Your task to perform on an android device: set an alarm Image 0: 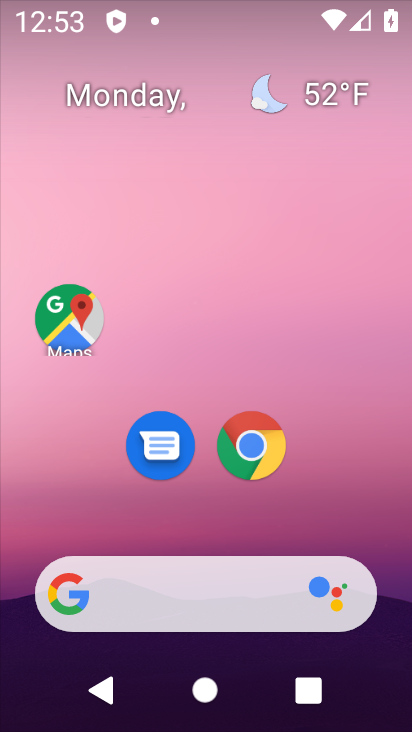
Step 0: drag from (399, 552) to (383, 57)
Your task to perform on an android device: set an alarm Image 1: 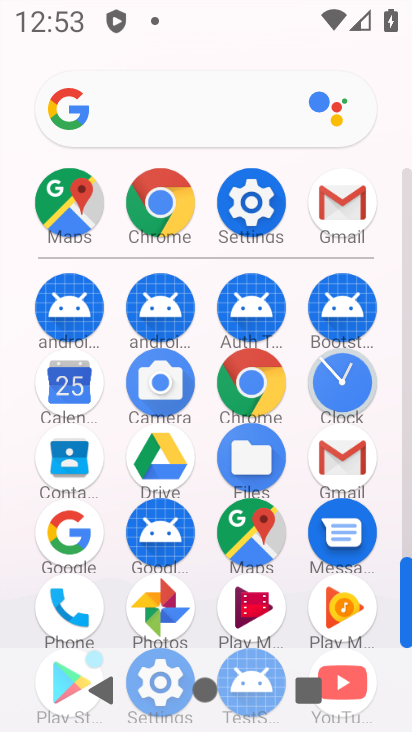
Step 1: click (330, 393)
Your task to perform on an android device: set an alarm Image 2: 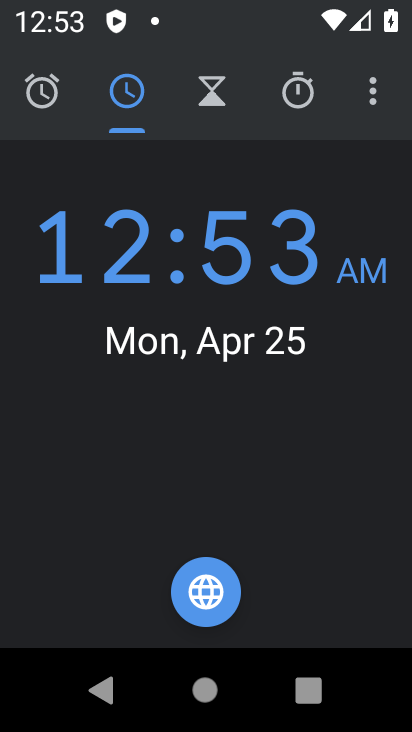
Step 2: click (372, 111)
Your task to perform on an android device: set an alarm Image 3: 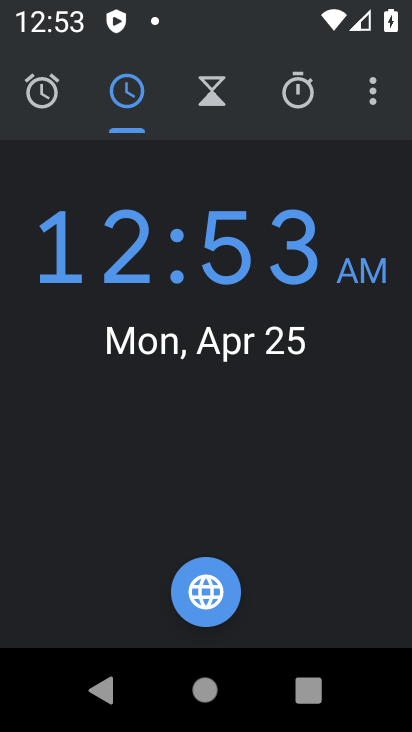
Step 3: click (381, 99)
Your task to perform on an android device: set an alarm Image 4: 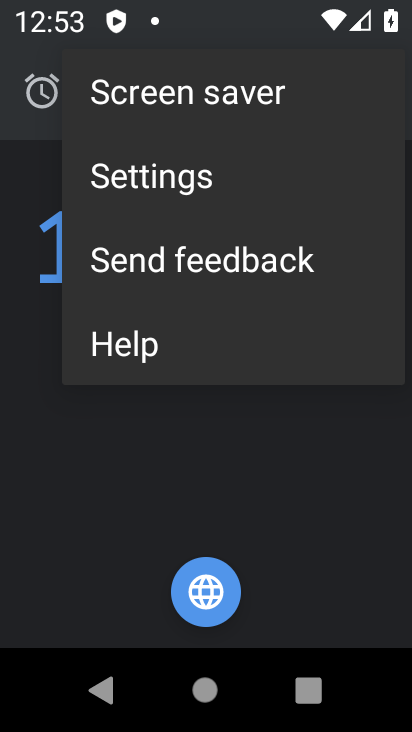
Step 4: click (176, 186)
Your task to perform on an android device: set an alarm Image 5: 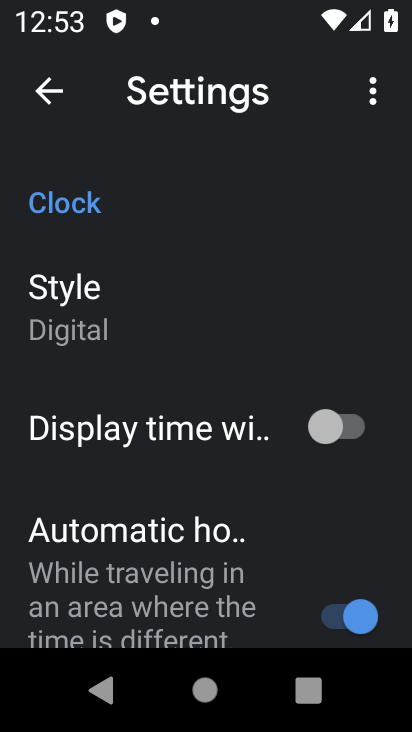
Step 5: drag from (173, 456) to (242, 208)
Your task to perform on an android device: set an alarm Image 6: 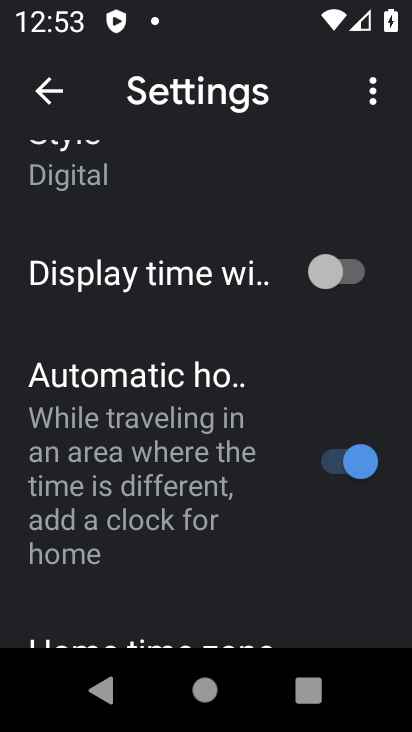
Step 6: drag from (135, 577) to (173, 172)
Your task to perform on an android device: set an alarm Image 7: 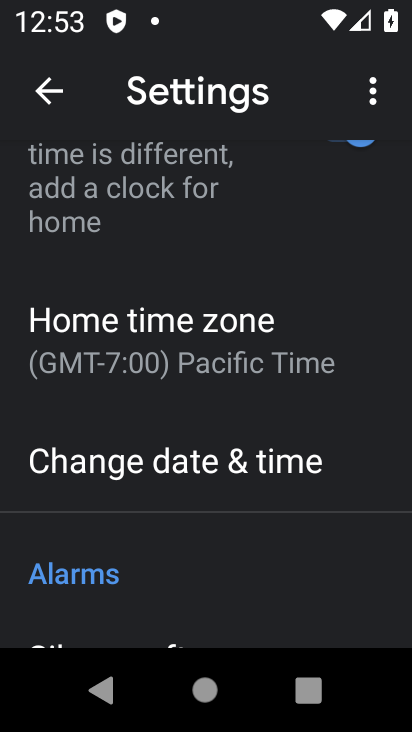
Step 7: drag from (42, 512) to (183, 223)
Your task to perform on an android device: set an alarm Image 8: 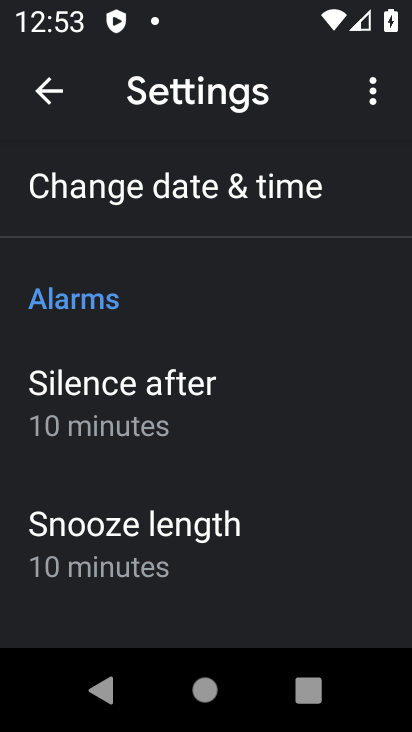
Step 8: drag from (291, 532) to (323, 153)
Your task to perform on an android device: set an alarm Image 9: 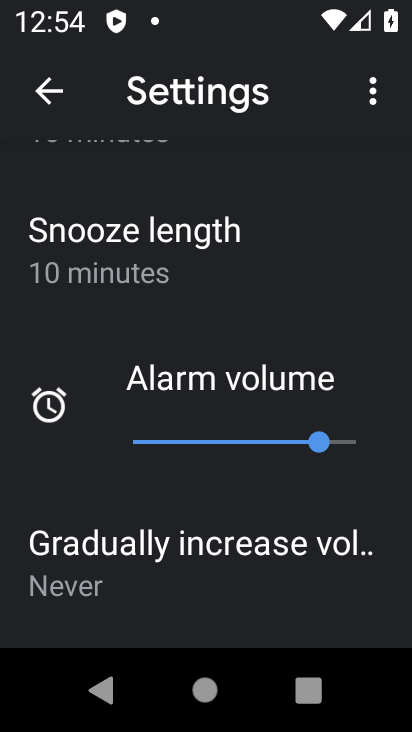
Step 9: drag from (216, 590) to (326, 202)
Your task to perform on an android device: set an alarm Image 10: 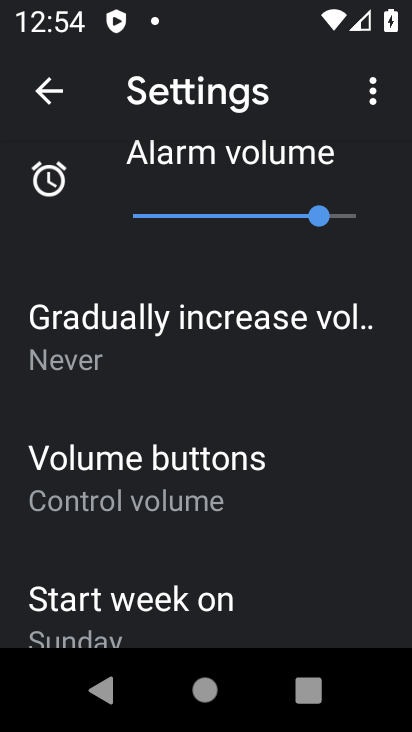
Step 10: drag from (230, 129) to (230, 516)
Your task to perform on an android device: set an alarm Image 11: 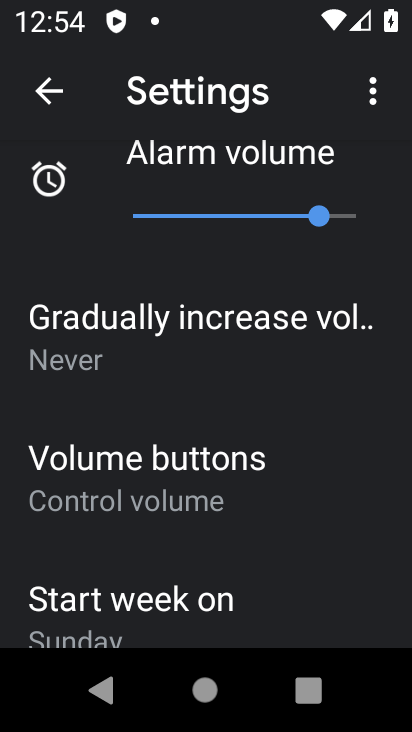
Step 11: click (44, 102)
Your task to perform on an android device: set an alarm Image 12: 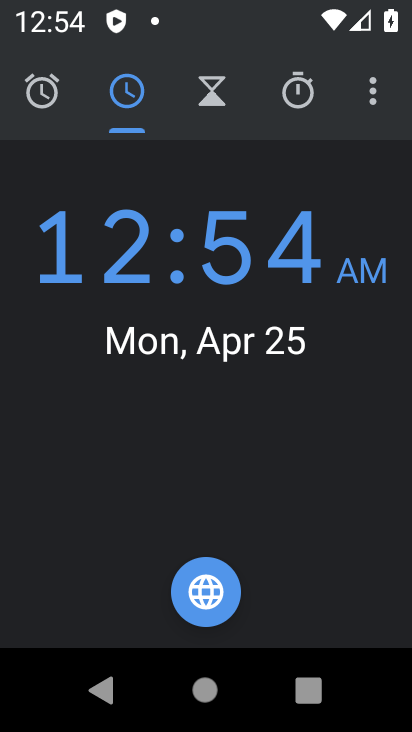
Step 12: click (53, 106)
Your task to perform on an android device: set an alarm Image 13: 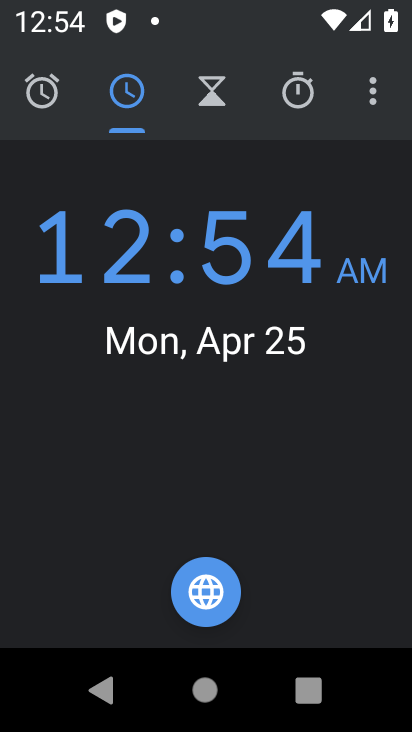
Step 13: click (26, 90)
Your task to perform on an android device: set an alarm Image 14: 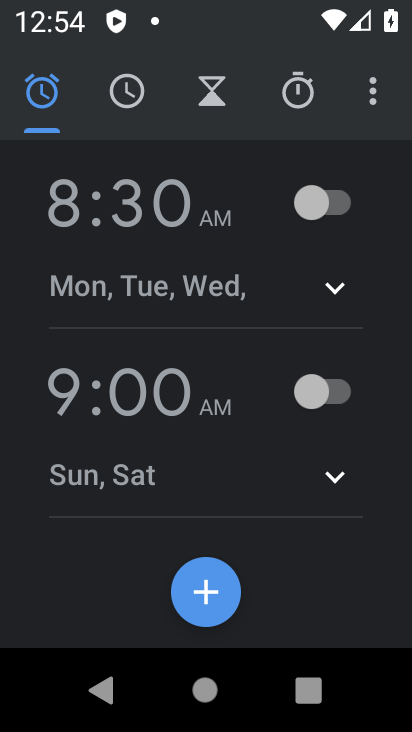
Step 14: click (202, 605)
Your task to perform on an android device: set an alarm Image 15: 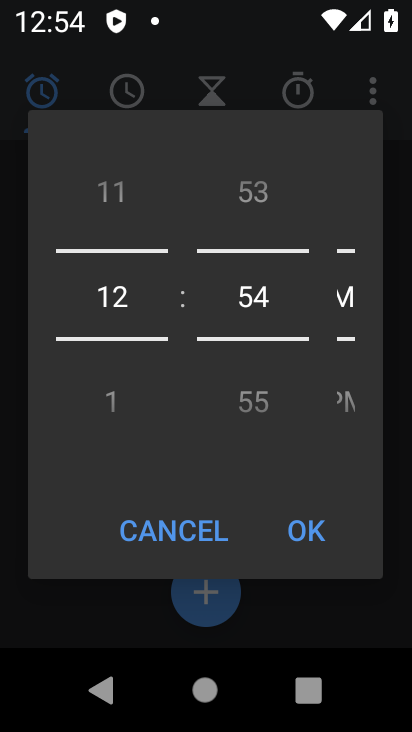
Step 15: click (294, 534)
Your task to perform on an android device: set an alarm Image 16: 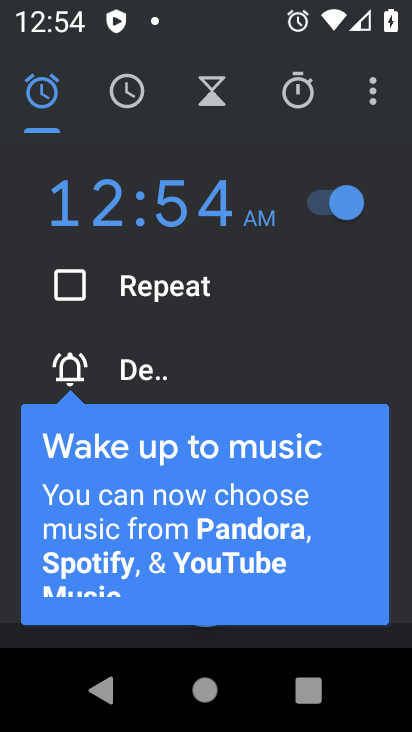
Step 16: task complete